Your task to perform on an android device: turn off smart reply in the gmail app Image 0: 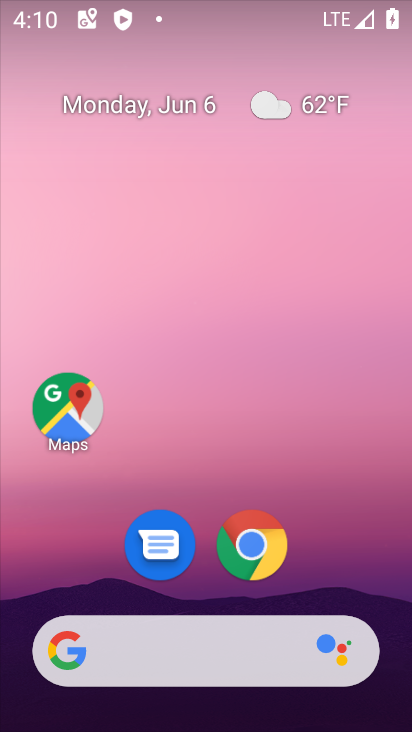
Step 0: drag from (256, 718) to (257, 69)
Your task to perform on an android device: turn off smart reply in the gmail app Image 1: 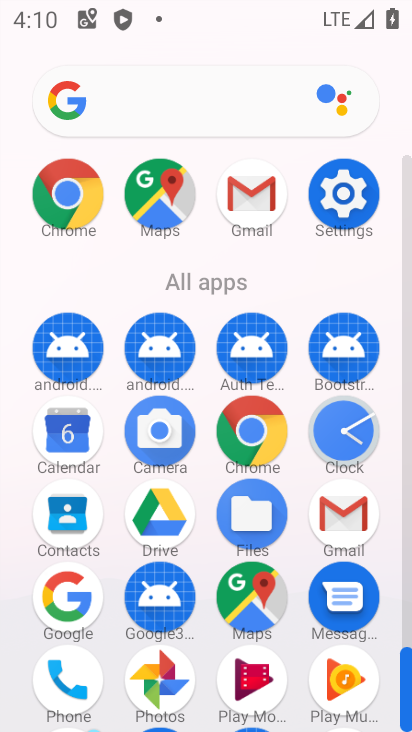
Step 1: click (355, 520)
Your task to perform on an android device: turn off smart reply in the gmail app Image 2: 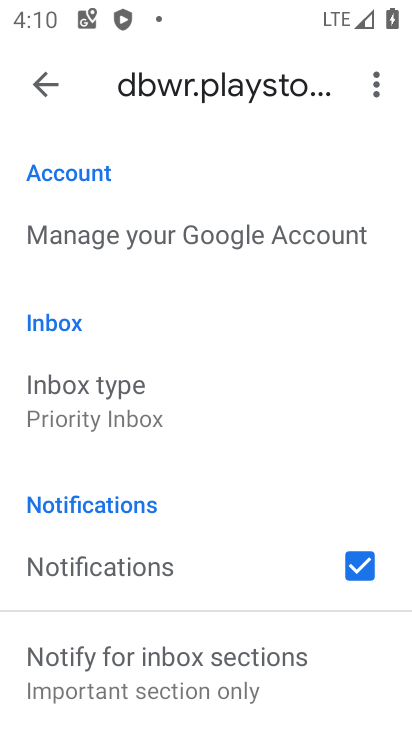
Step 2: drag from (182, 638) to (145, 152)
Your task to perform on an android device: turn off smart reply in the gmail app Image 3: 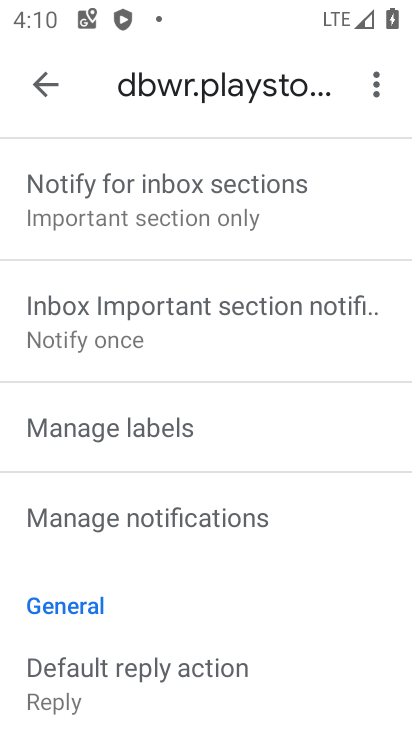
Step 3: drag from (155, 682) to (149, 246)
Your task to perform on an android device: turn off smart reply in the gmail app Image 4: 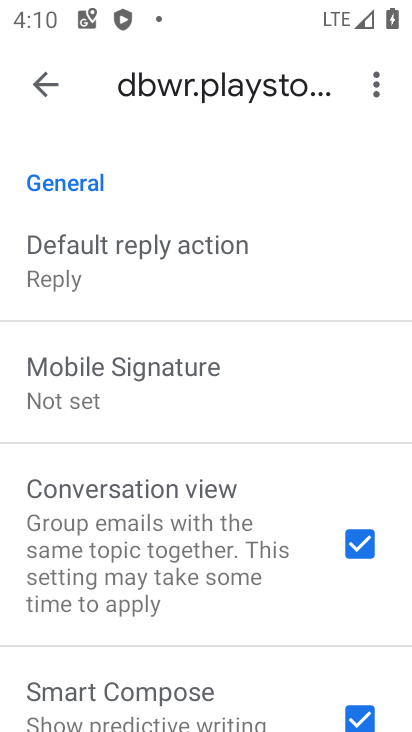
Step 4: drag from (177, 682) to (185, 263)
Your task to perform on an android device: turn off smart reply in the gmail app Image 5: 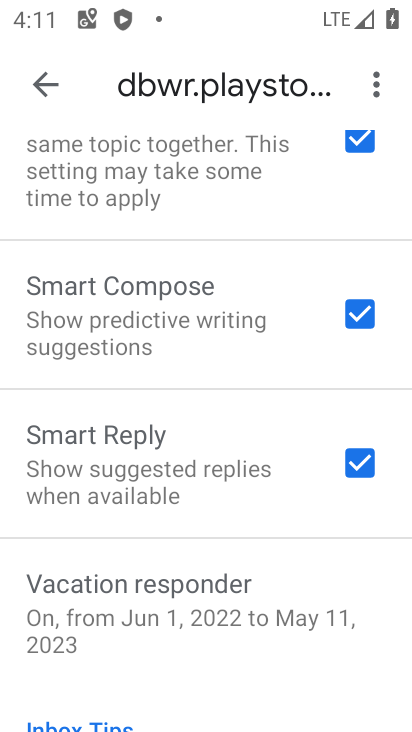
Step 5: click (366, 458)
Your task to perform on an android device: turn off smart reply in the gmail app Image 6: 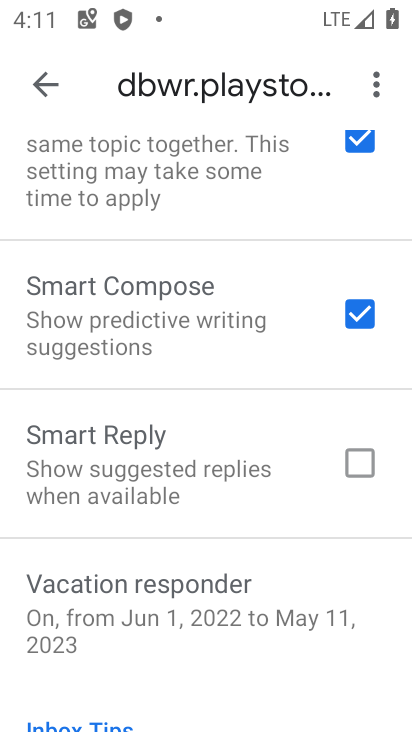
Step 6: task complete